Your task to perform on an android device: turn off improve location accuracy Image 0: 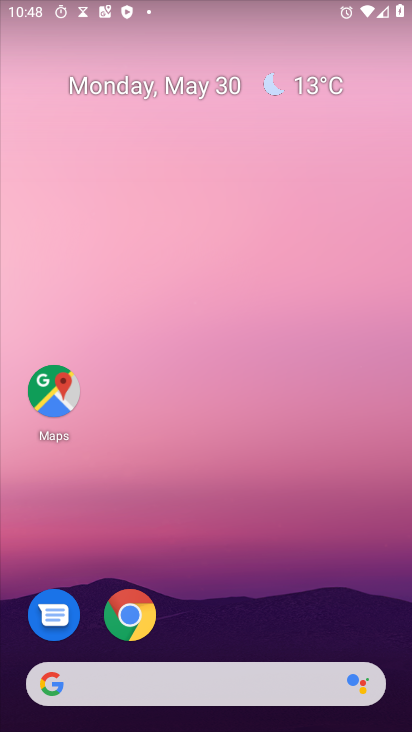
Step 0: drag from (302, 579) to (263, 117)
Your task to perform on an android device: turn off improve location accuracy Image 1: 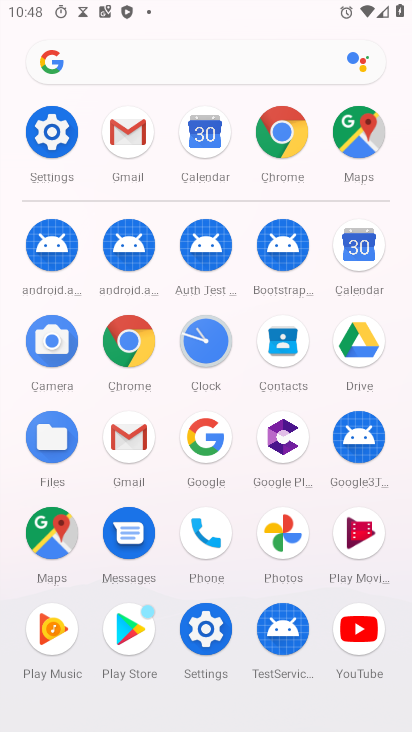
Step 1: click (71, 141)
Your task to perform on an android device: turn off improve location accuracy Image 2: 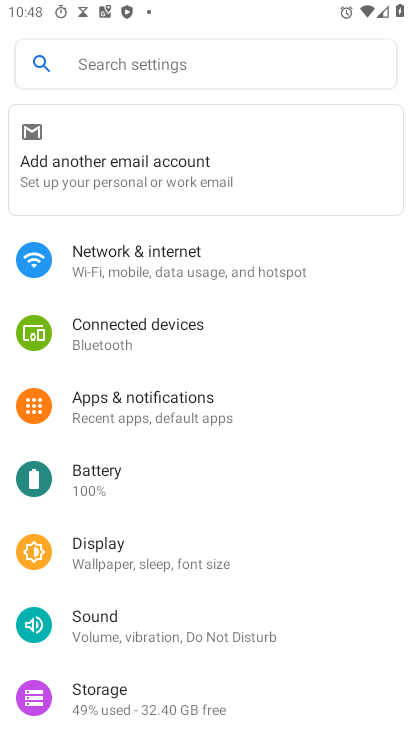
Step 2: drag from (241, 664) to (206, 290)
Your task to perform on an android device: turn off improve location accuracy Image 3: 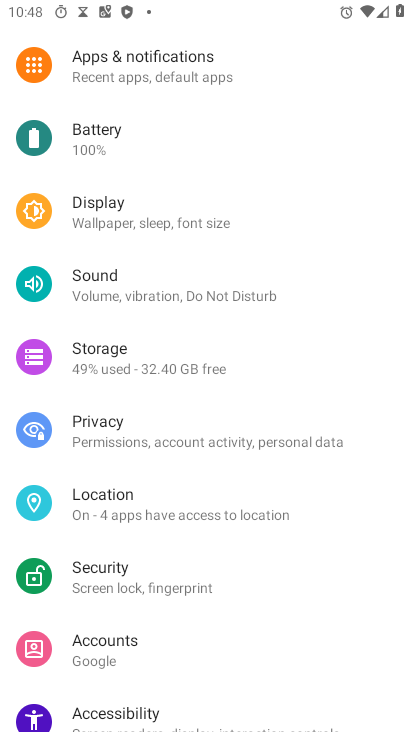
Step 3: drag from (267, 581) to (259, 237)
Your task to perform on an android device: turn off improve location accuracy Image 4: 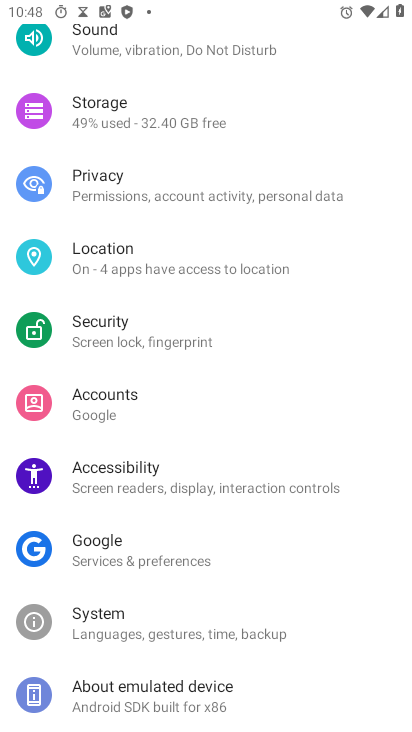
Step 4: click (150, 273)
Your task to perform on an android device: turn off improve location accuracy Image 5: 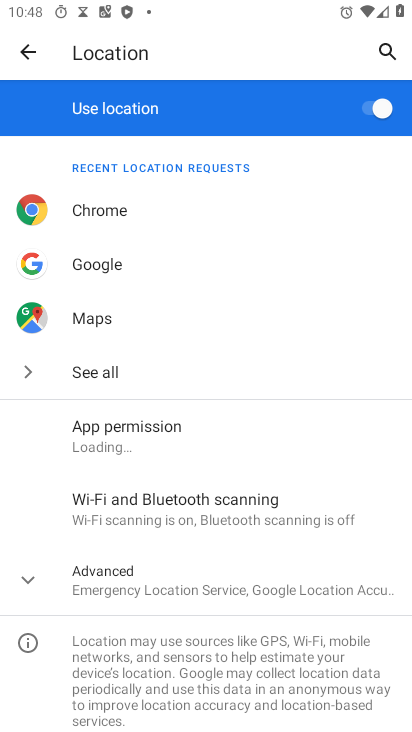
Step 5: drag from (124, 595) to (174, 371)
Your task to perform on an android device: turn off improve location accuracy Image 6: 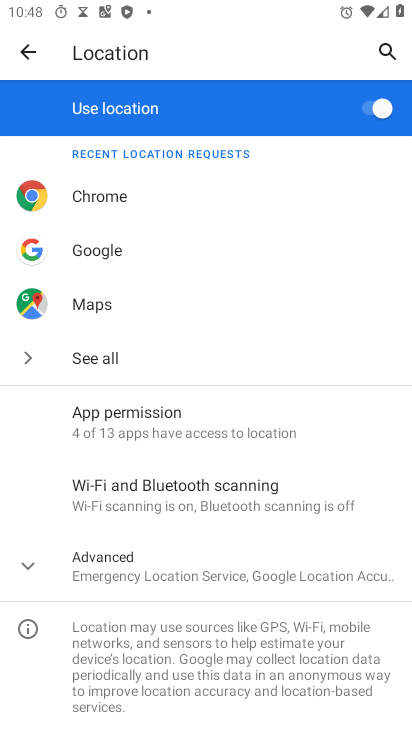
Step 6: click (124, 569)
Your task to perform on an android device: turn off improve location accuracy Image 7: 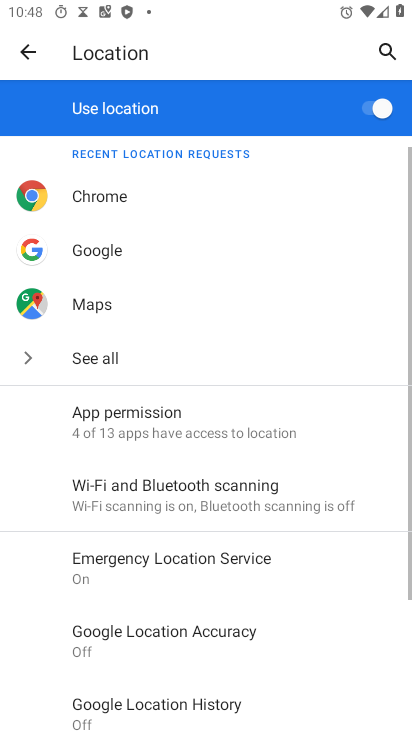
Step 7: drag from (160, 633) to (230, 214)
Your task to perform on an android device: turn off improve location accuracy Image 8: 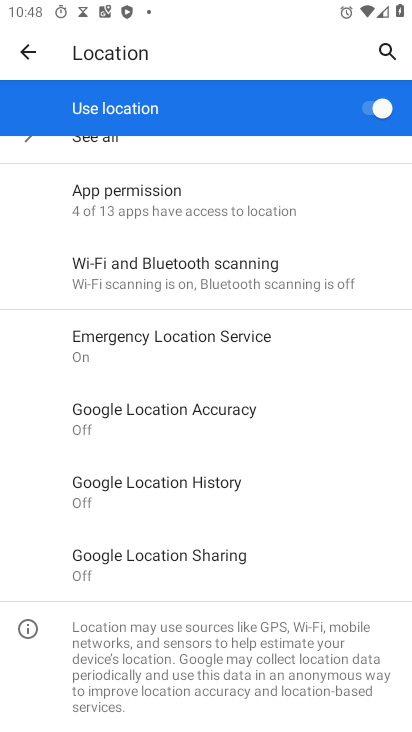
Step 8: click (171, 415)
Your task to perform on an android device: turn off improve location accuracy Image 9: 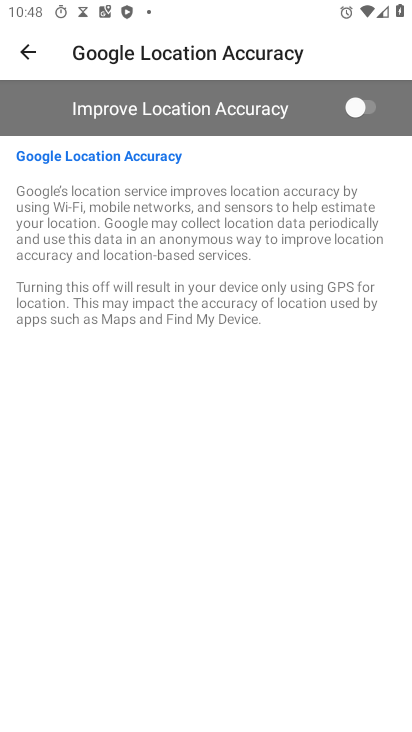
Step 9: task complete